Your task to perform on an android device: delete the emails in spam in the gmail app Image 0: 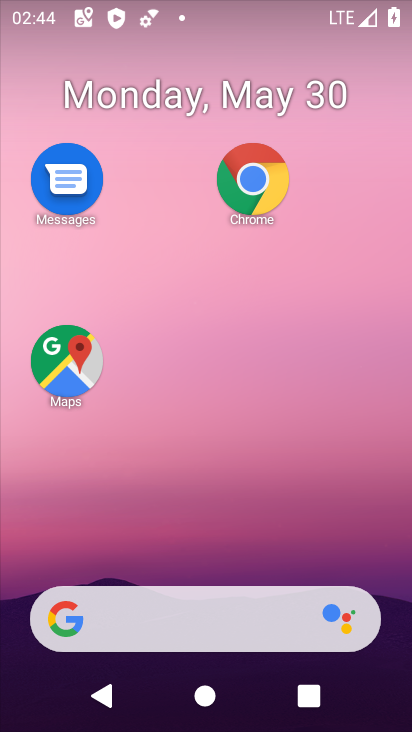
Step 0: drag from (158, 568) to (197, 19)
Your task to perform on an android device: delete the emails in spam in the gmail app Image 1: 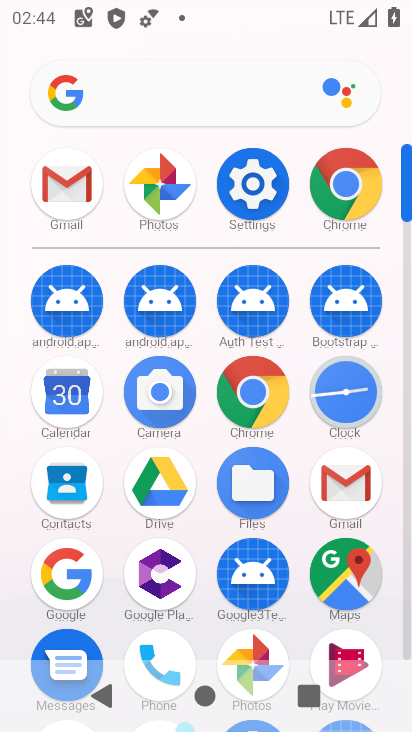
Step 1: click (57, 194)
Your task to perform on an android device: delete the emails in spam in the gmail app Image 2: 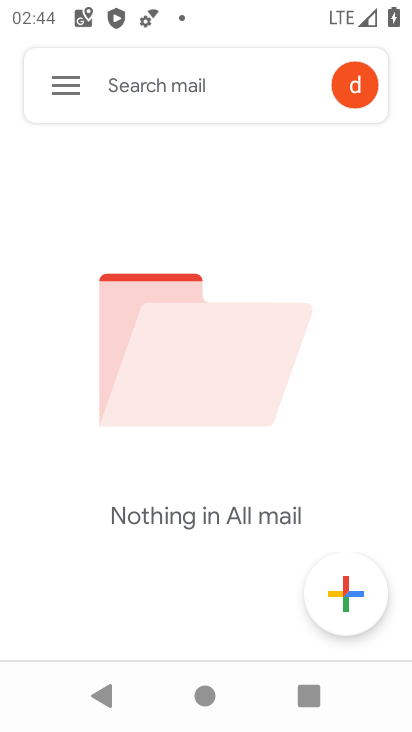
Step 2: click (63, 87)
Your task to perform on an android device: delete the emails in spam in the gmail app Image 3: 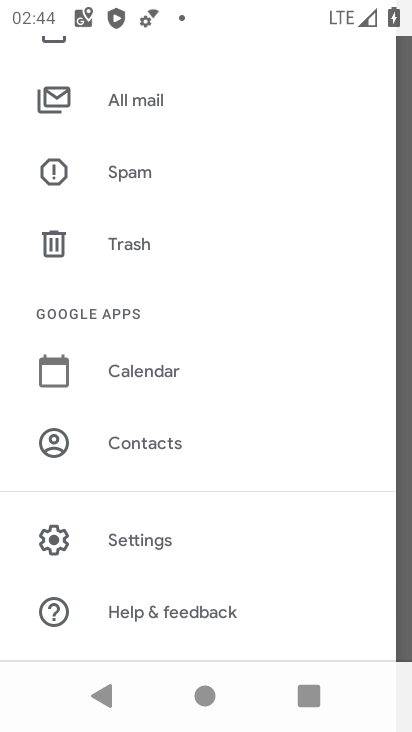
Step 3: click (118, 176)
Your task to perform on an android device: delete the emails in spam in the gmail app Image 4: 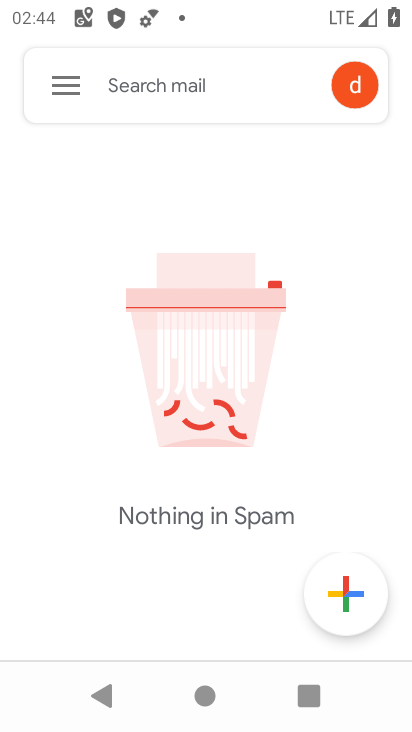
Step 4: task complete